Your task to perform on an android device: What's on the menu at Chipotle? Image 0: 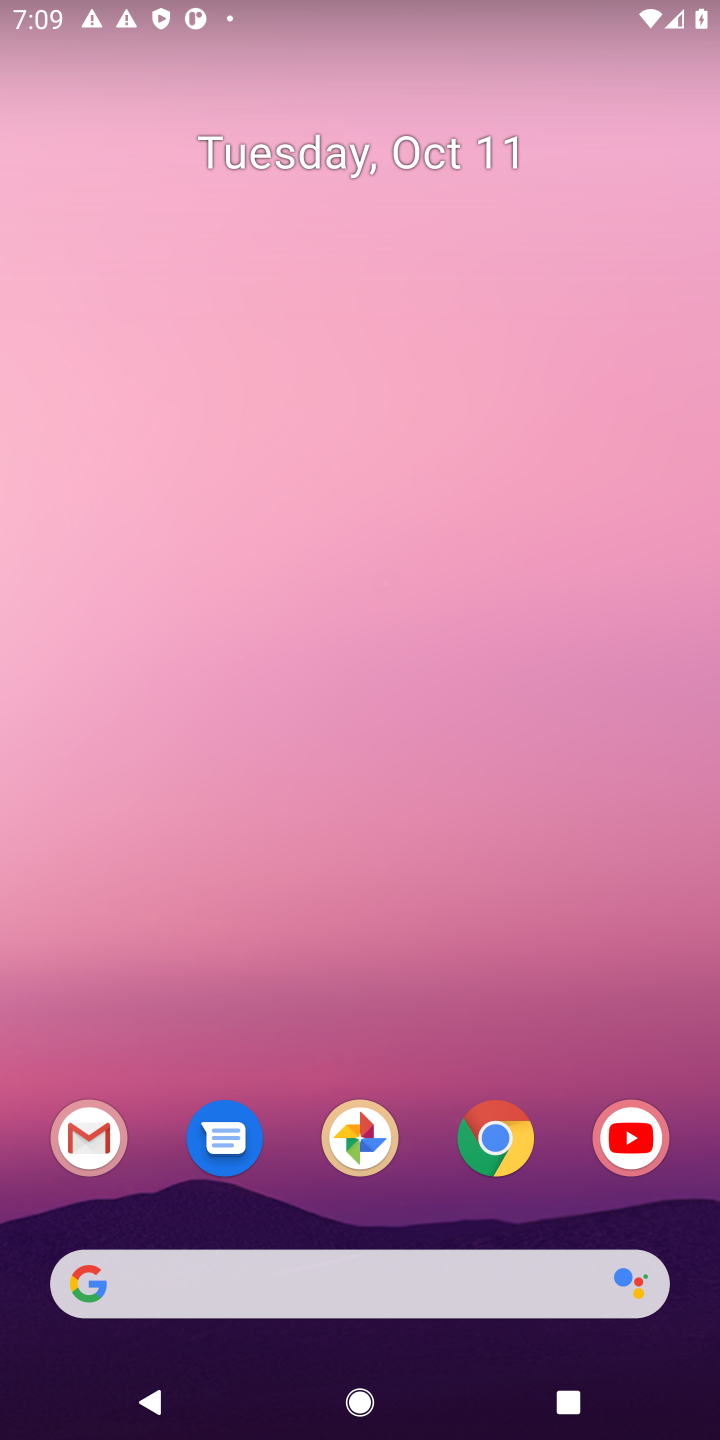
Step 0: click (324, 1284)
Your task to perform on an android device: What's on the menu at Chipotle? Image 1: 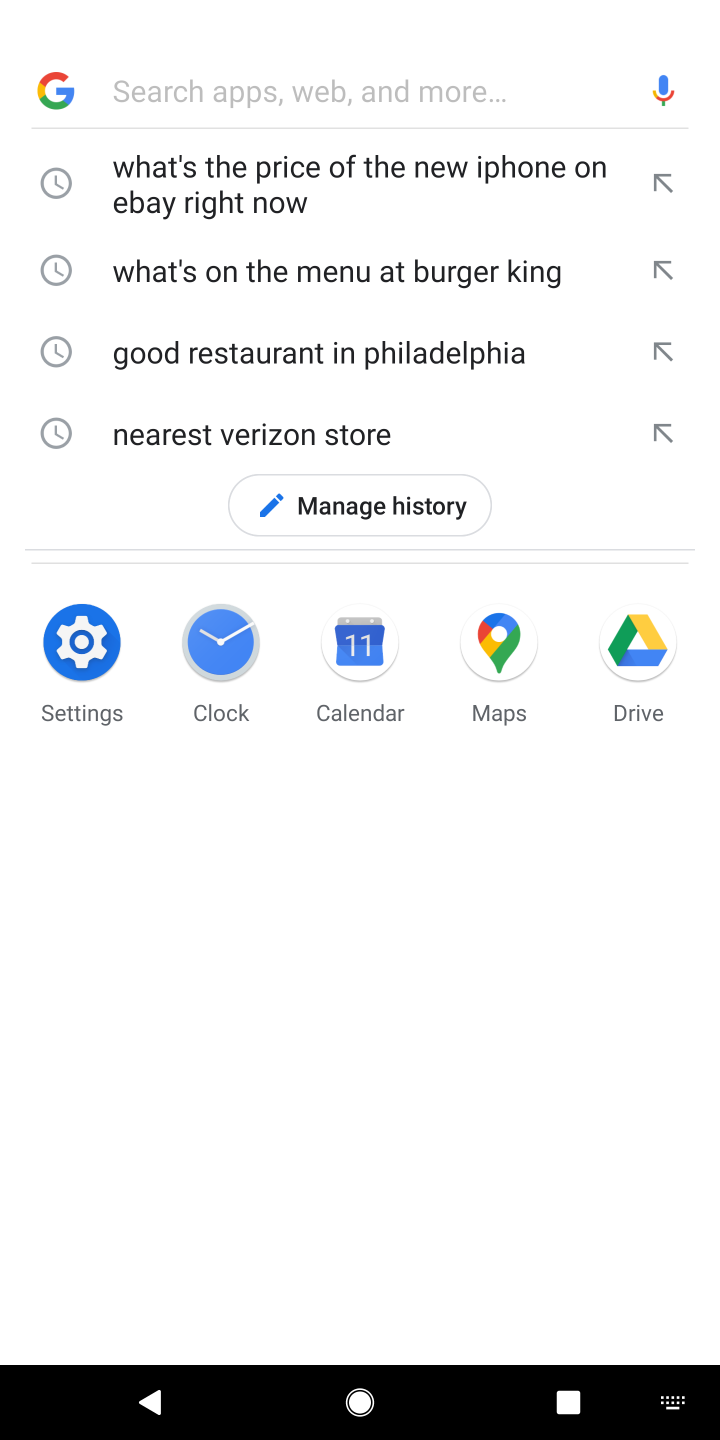
Step 1: type "What's on the menu at Chipotle?"
Your task to perform on an android device: What's on the menu at Chipotle? Image 2: 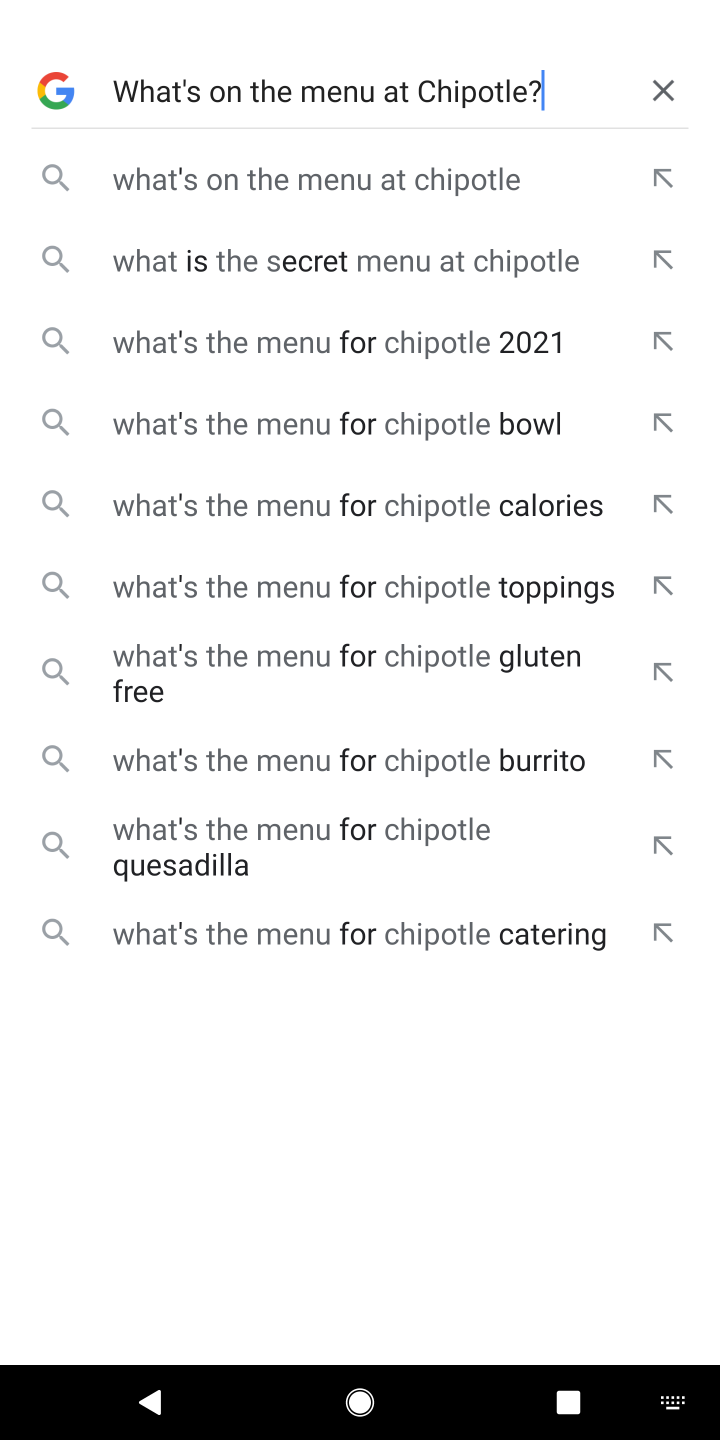
Step 2: click (292, 178)
Your task to perform on an android device: What's on the menu at Chipotle? Image 3: 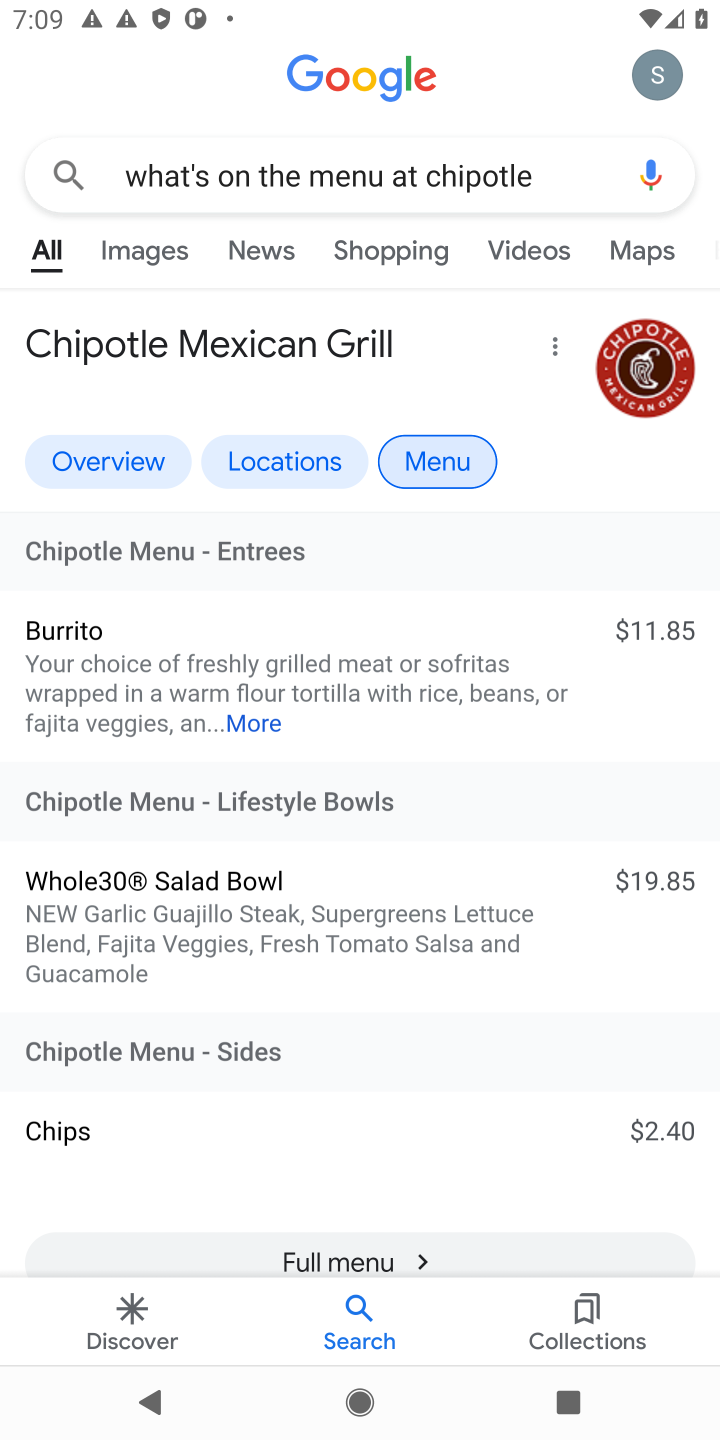
Step 3: click (384, 1261)
Your task to perform on an android device: What's on the menu at Chipotle? Image 4: 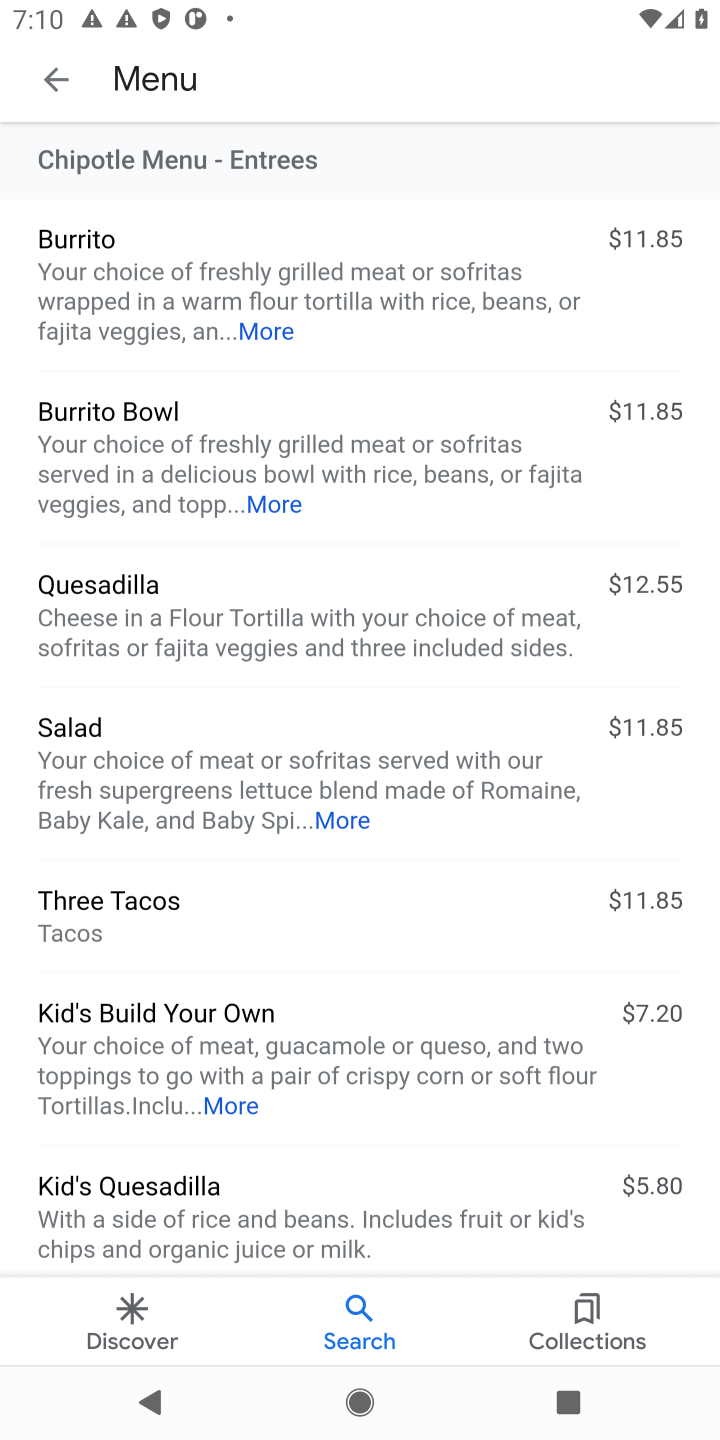
Step 4: task complete